Your task to perform on an android device: change the clock display to show seconds Image 0: 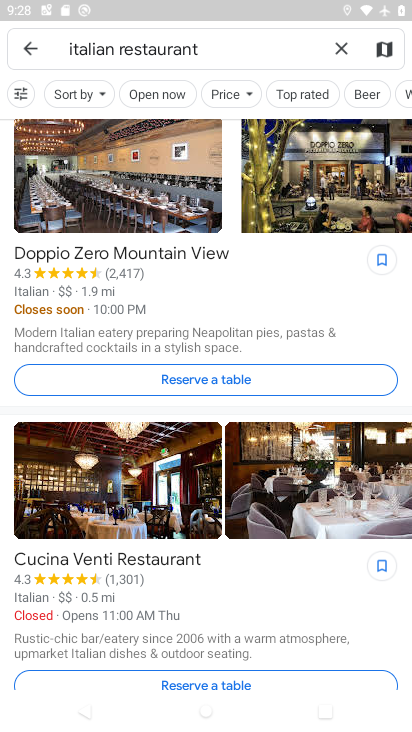
Step 0: press home button
Your task to perform on an android device: change the clock display to show seconds Image 1: 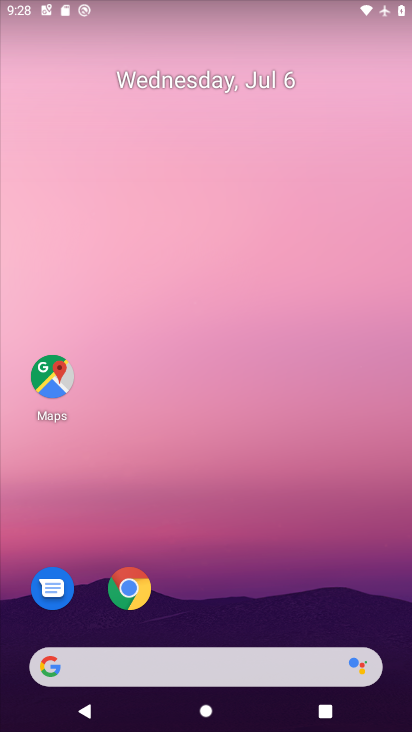
Step 1: drag from (243, 670) to (408, 32)
Your task to perform on an android device: change the clock display to show seconds Image 2: 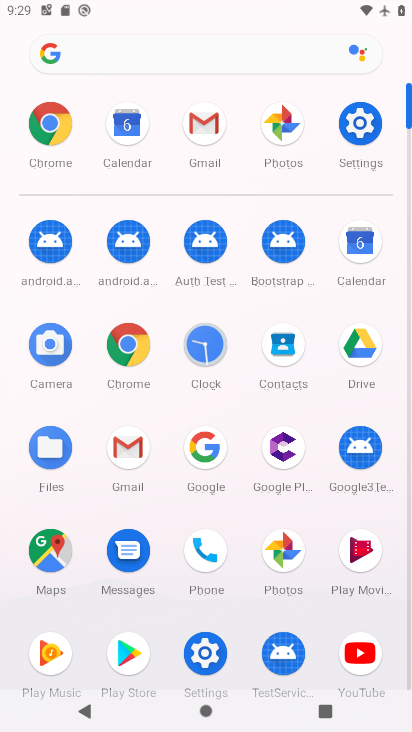
Step 2: click (199, 339)
Your task to perform on an android device: change the clock display to show seconds Image 3: 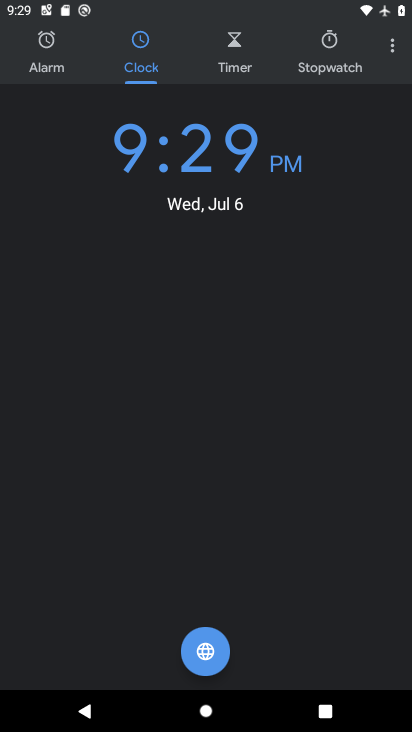
Step 3: click (387, 37)
Your task to perform on an android device: change the clock display to show seconds Image 4: 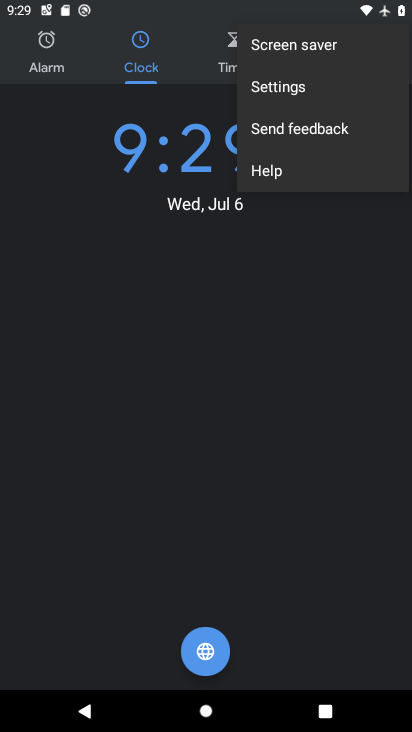
Step 4: click (283, 87)
Your task to perform on an android device: change the clock display to show seconds Image 5: 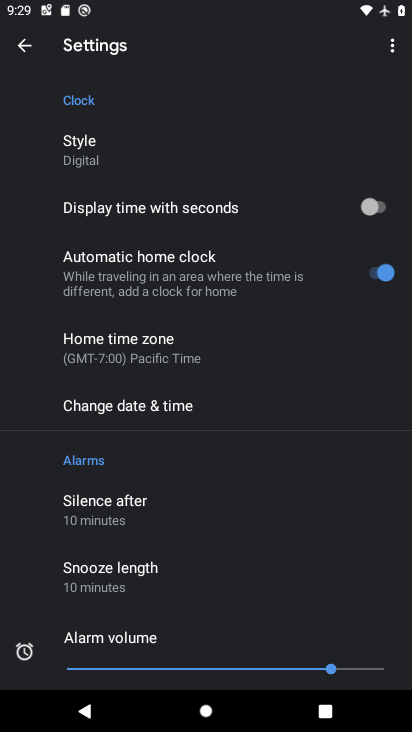
Step 5: click (376, 209)
Your task to perform on an android device: change the clock display to show seconds Image 6: 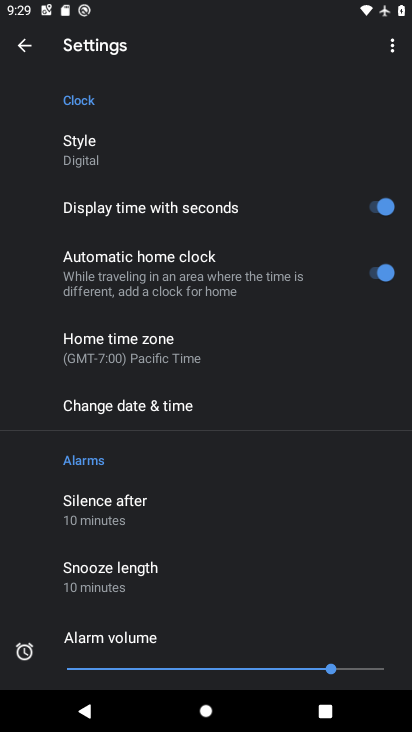
Step 6: task complete